Your task to perform on an android device: Open Google Chrome and click the shortcut for Amazon.com Image 0: 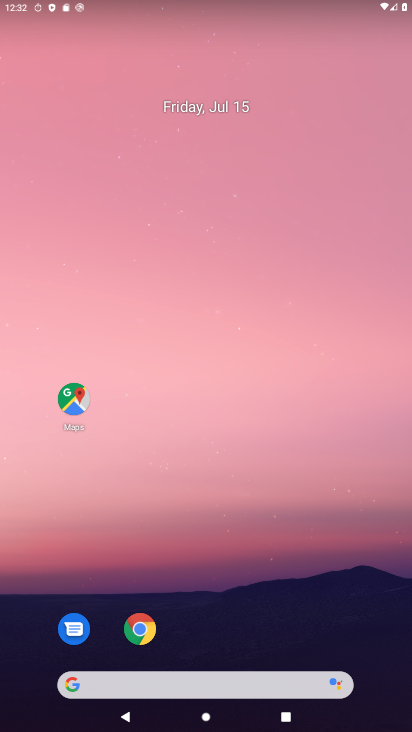
Step 0: drag from (297, 598) to (286, 69)
Your task to perform on an android device: Open Google Chrome and click the shortcut for Amazon.com Image 1: 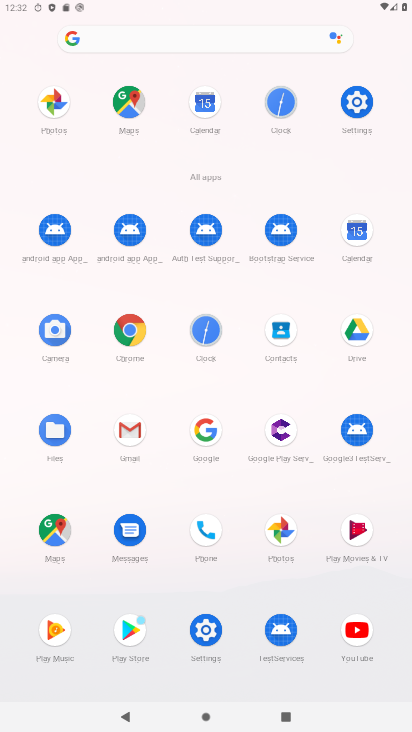
Step 1: click (130, 340)
Your task to perform on an android device: Open Google Chrome and click the shortcut for Amazon.com Image 2: 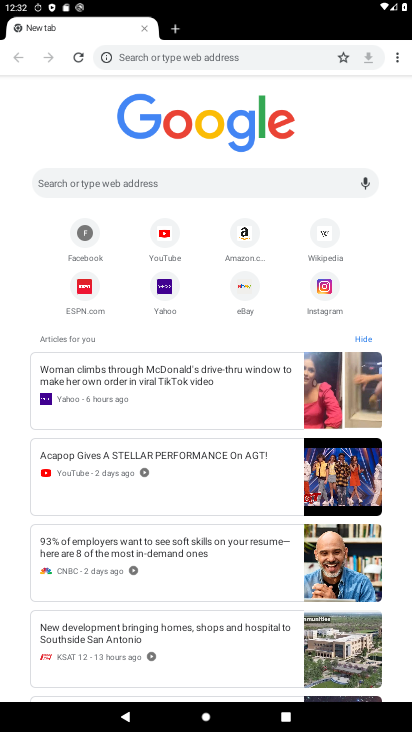
Step 2: click (251, 239)
Your task to perform on an android device: Open Google Chrome and click the shortcut for Amazon.com Image 3: 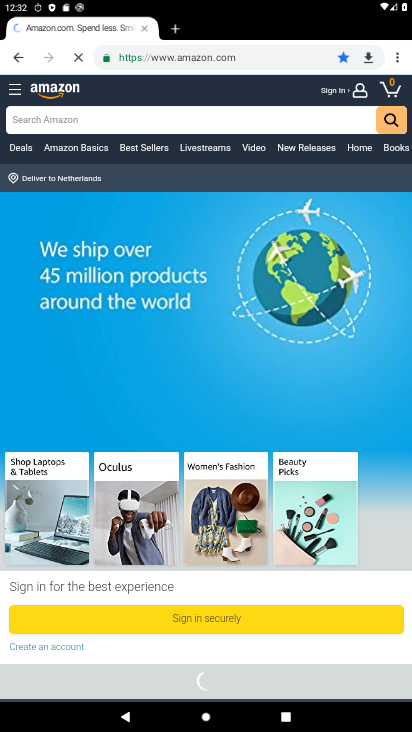
Step 3: task complete